Your task to perform on an android device: Open Yahoo.com Image 0: 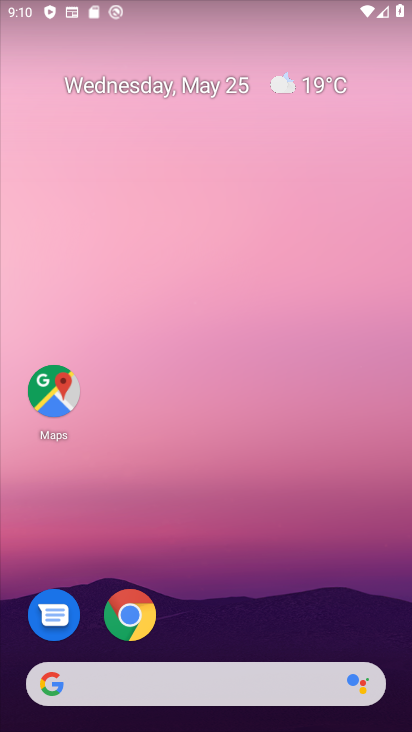
Step 0: drag from (263, 697) to (169, 71)
Your task to perform on an android device: Open Yahoo.com Image 1: 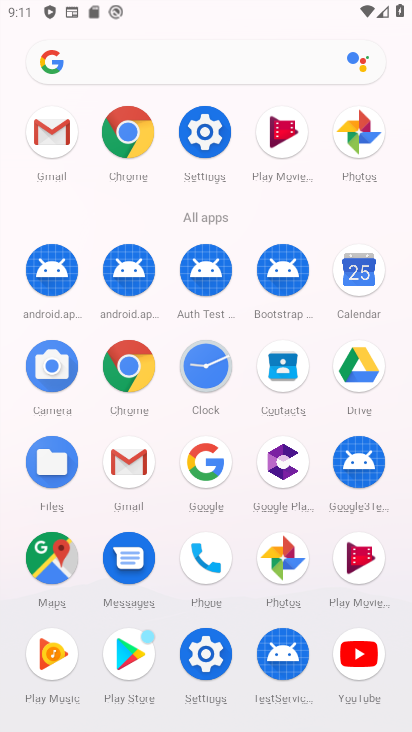
Step 1: click (126, 122)
Your task to perform on an android device: Open Yahoo.com Image 2: 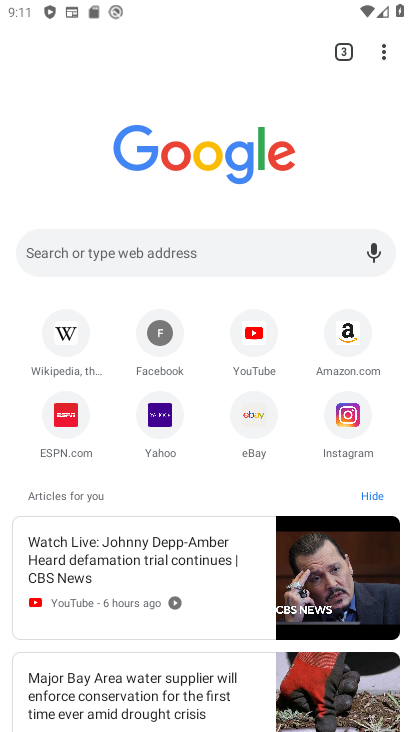
Step 2: click (156, 428)
Your task to perform on an android device: Open Yahoo.com Image 3: 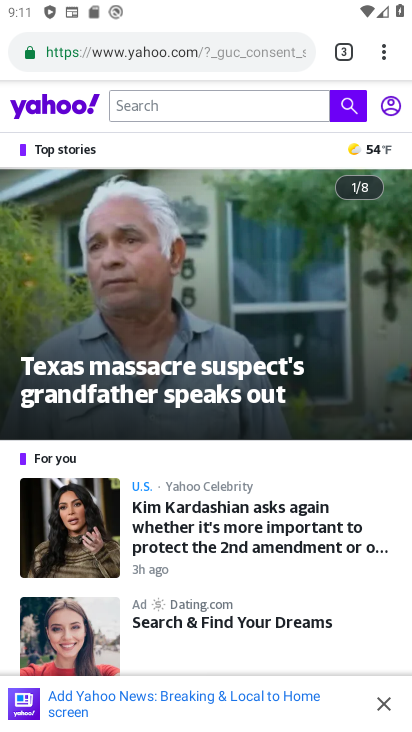
Step 3: task complete